Your task to perform on an android device: turn on notifications settings in the gmail app Image 0: 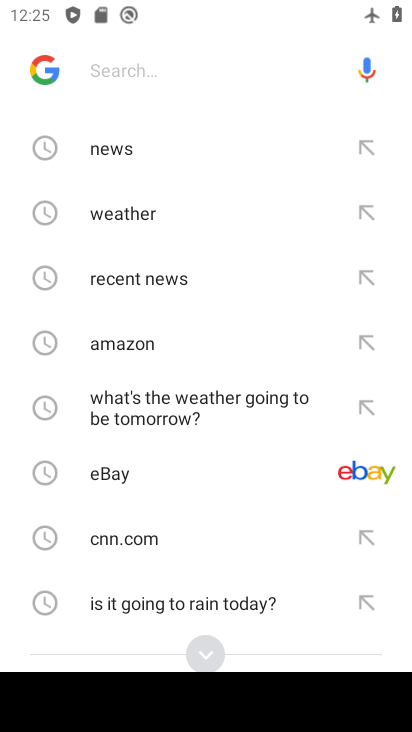
Step 0: press home button
Your task to perform on an android device: turn on notifications settings in the gmail app Image 1: 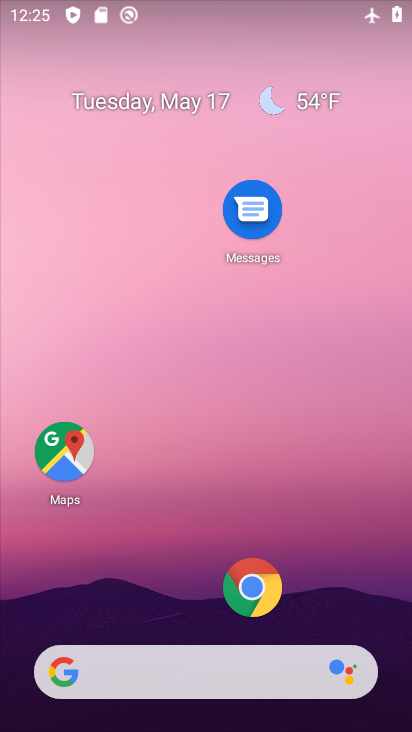
Step 1: drag from (129, 536) to (247, 18)
Your task to perform on an android device: turn on notifications settings in the gmail app Image 2: 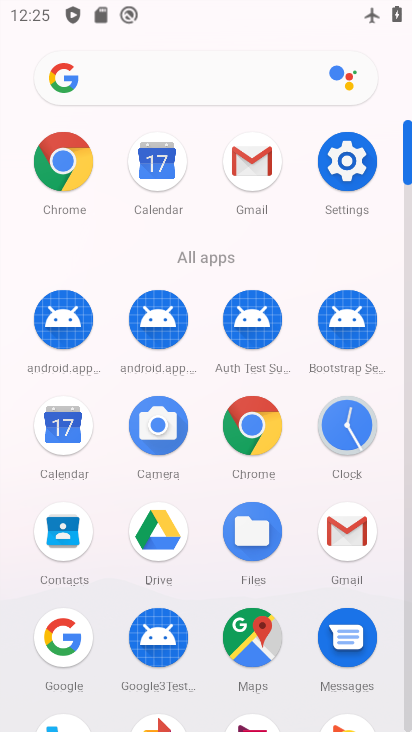
Step 2: click (353, 540)
Your task to perform on an android device: turn on notifications settings in the gmail app Image 3: 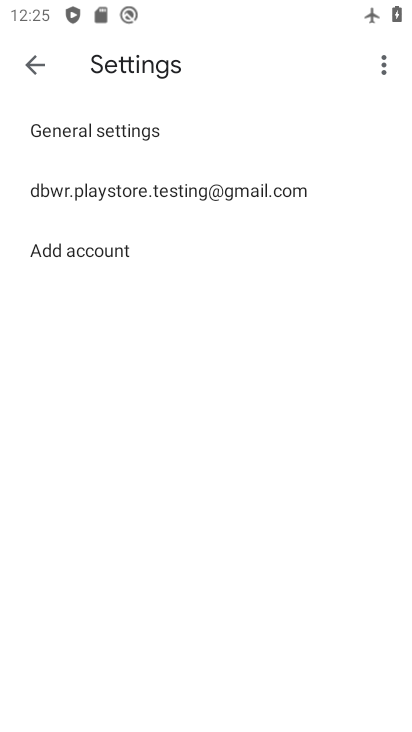
Step 3: click (149, 132)
Your task to perform on an android device: turn on notifications settings in the gmail app Image 4: 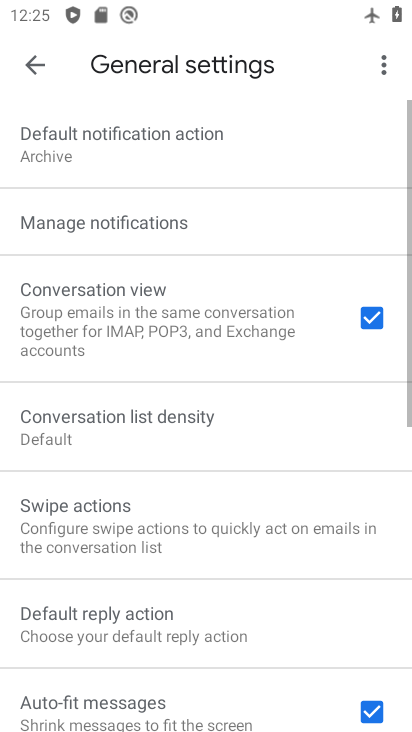
Step 4: click (121, 222)
Your task to perform on an android device: turn on notifications settings in the gmail app Image 5: 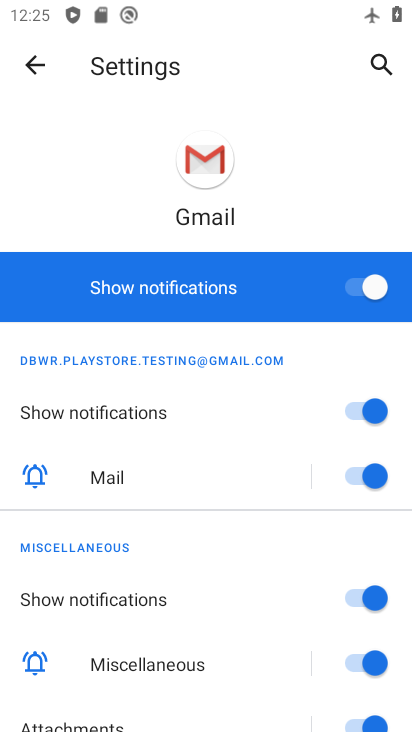
Step 5: task complete